Your task to perform on an android device: toggle notification dots Image 0: 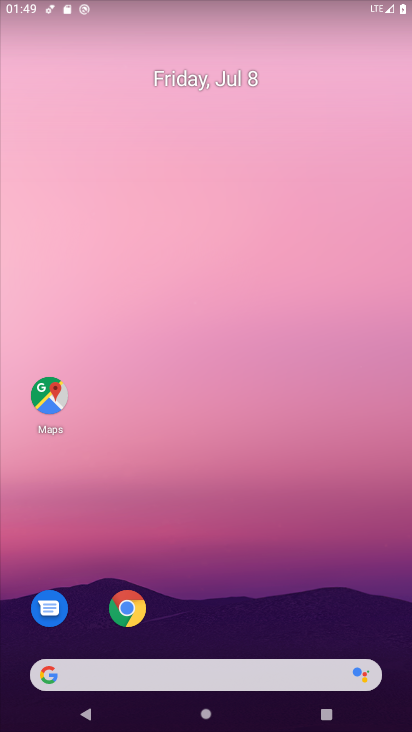
Step 0: drag from (171, 617) to (208, 181)
Your task to perform on an android device: toggle notification dots Image 1: 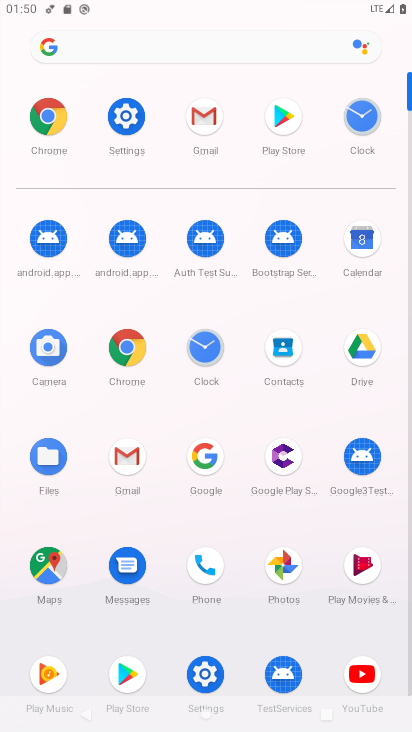
Step 1: click (122, 103)
Your task to perform on an android device: toggle notification dots Image 2: 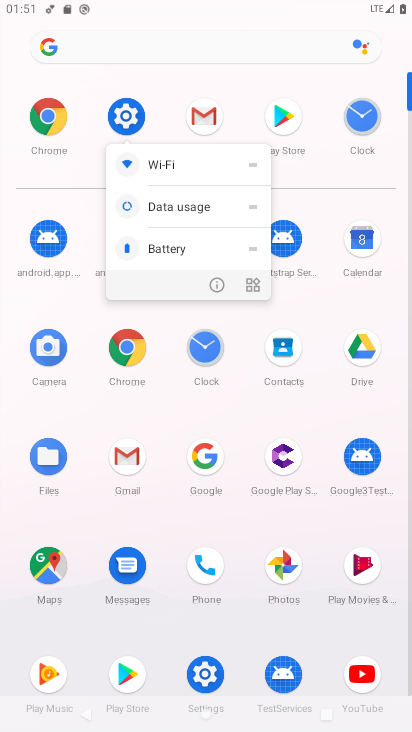
Step 2: click (129, 106)
Your task to perform on an android device: toggle notification dots Image 3: 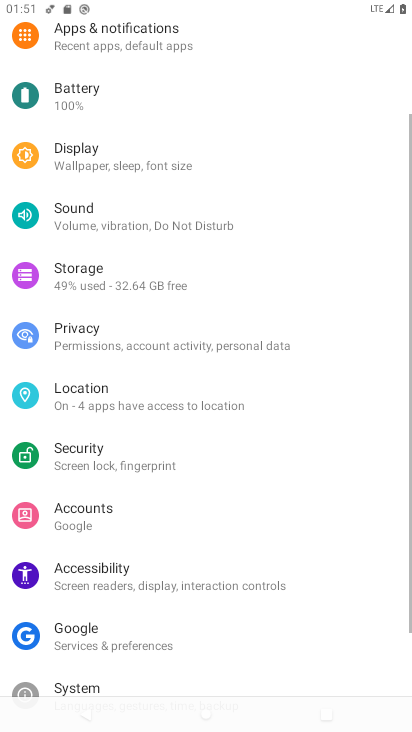
Step 3: drag from (168, 67) to (179, 646)
Your task to perform on an android device: toggle notification dots Image 4: 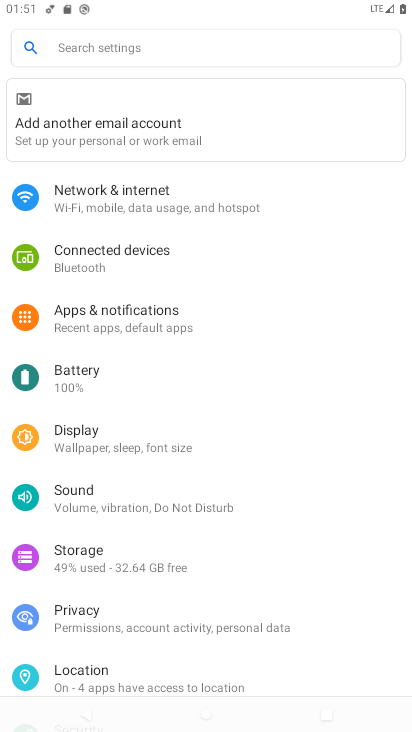
Step 4: click (156, 39)
Your task to perform on an android device: toggle notification dots Image 5: 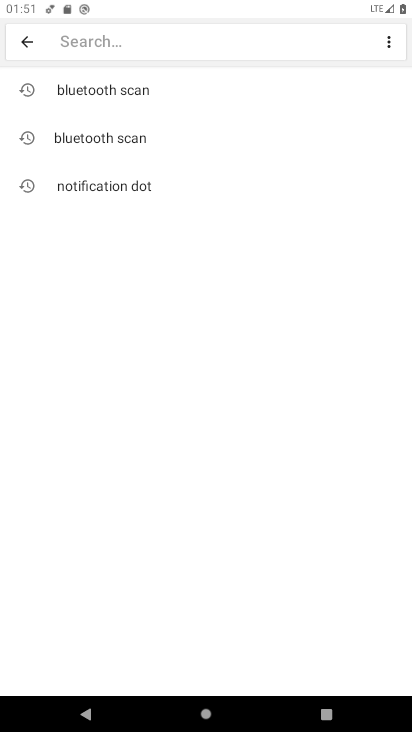
Step 5: click (137, 191)
Your task to perform on an android device: toggle notification dots Image 6: 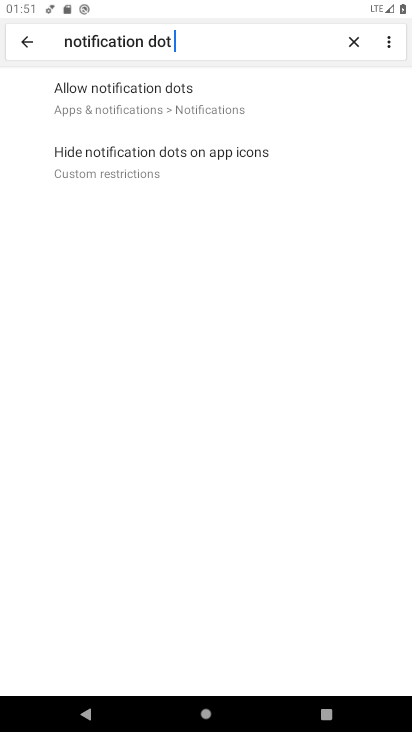
Step 6: click (242, 91)
Your task to perform on an android device: toggle notification dots Image 7: 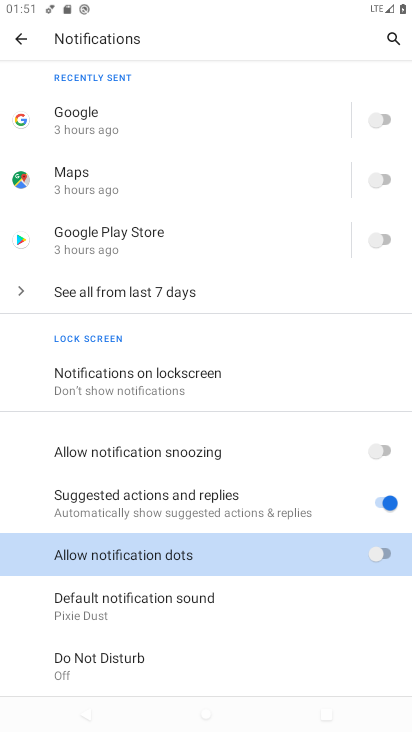
Step 7: click (376, 552)
Your task to perform on an android device: toggle notification dots Image 8: 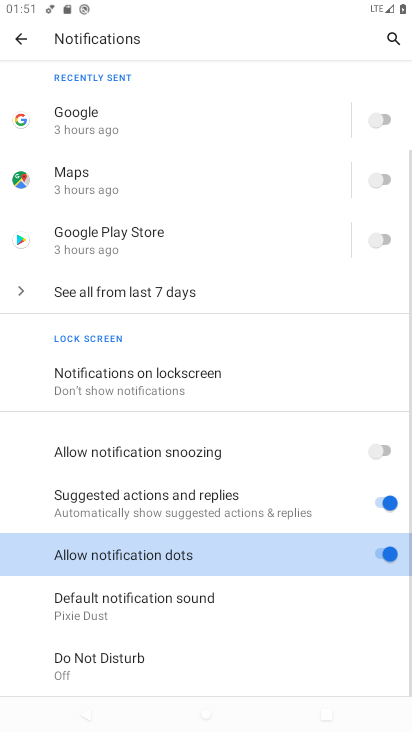
Step 8: task complete